Your task to perform on an android device: turn on translation in the chrome app Image 0: 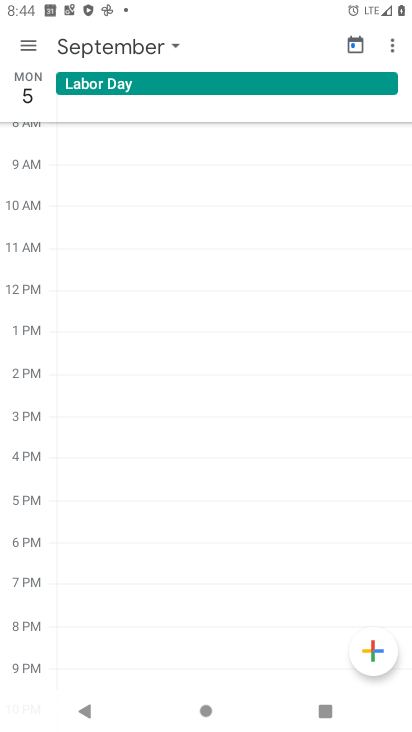
Step 0: press home button
Your task to perform on an android device: turn on translation in the chrome app Image 1: 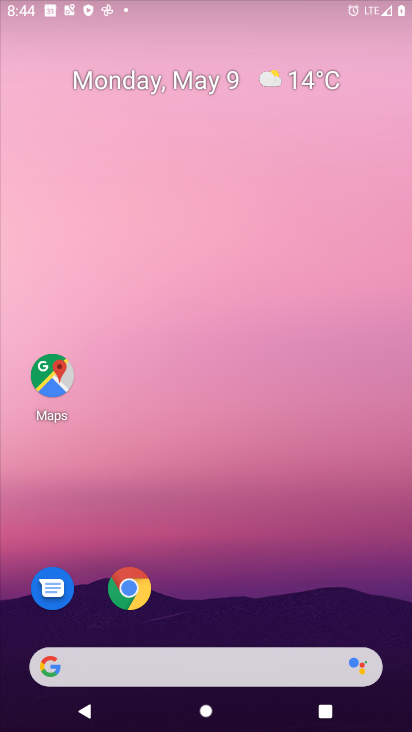
Step 1: drag from (334, 613) to (249, 178)
Your task to perform on an android device: turn on translation in the chrome app Image 2: 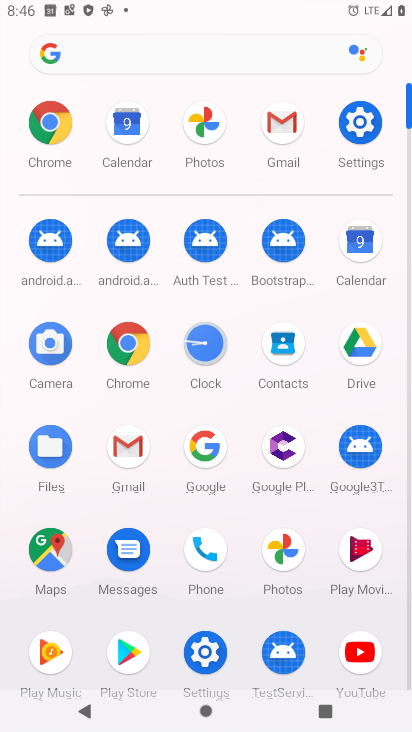
Step 2: click (133, 340)
Your task to perform on an android device: turn on translation in the chrome app Image 3: 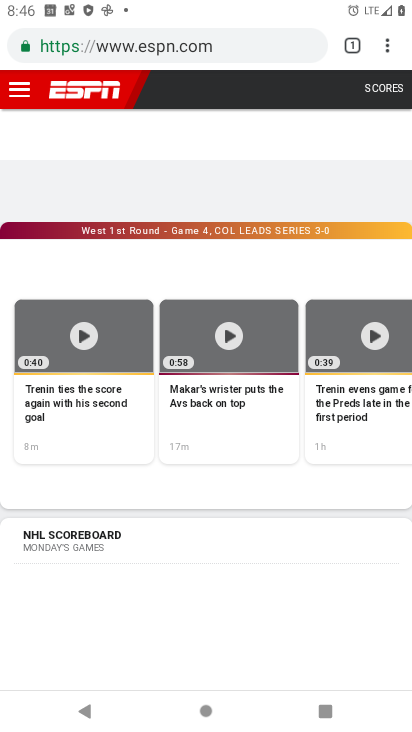
Step 3: press back button
Your task to perform on an android device: turn on translation in the chrome app Image 4: 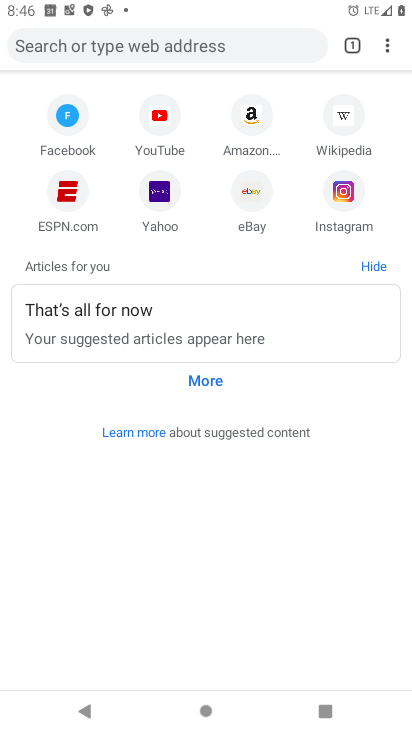
Step 4: click (387, 44)
Your task to perform on an android device: turn on translation in the chrome app Image 5: 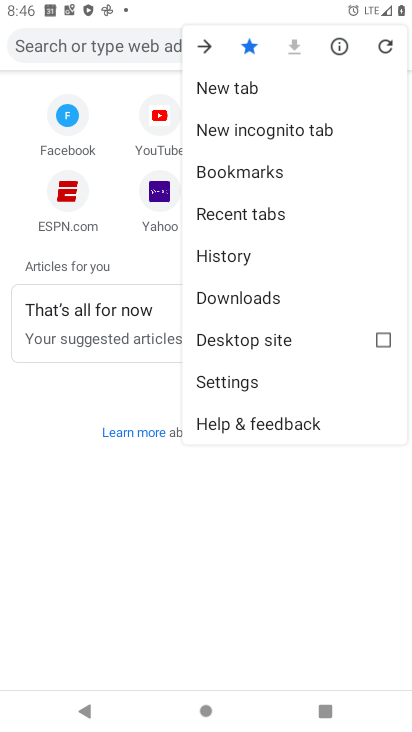
Step 5: click (242, 393)
Your task to perform on an android device: turn on translation in the chrome app Image 6: 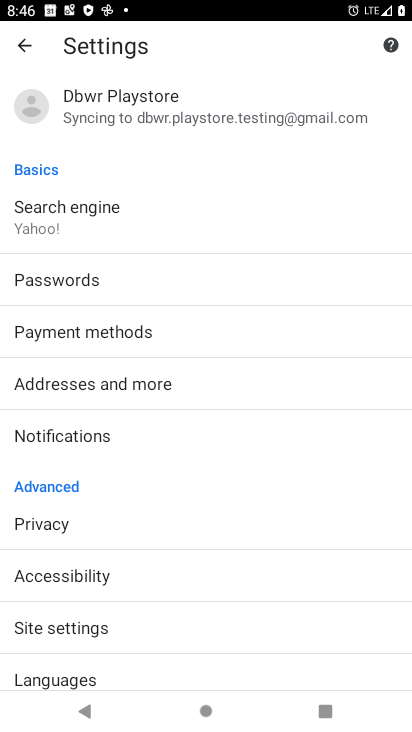
Step 6: click (132, 676)
Your task to perform on an android device: turn on translation in the chrome app Image 7: 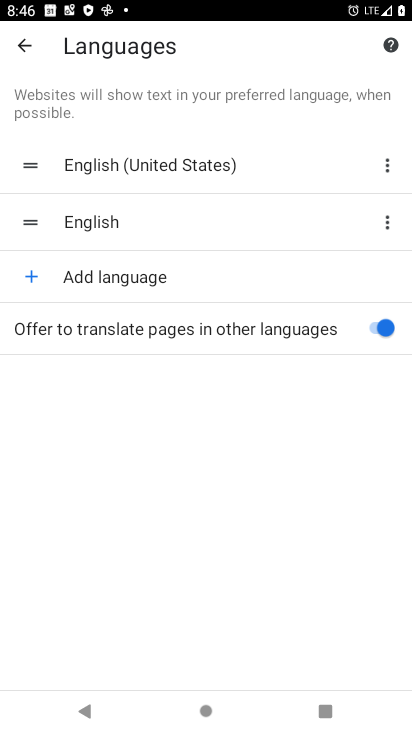
Step 7: task complete